Your task to perform on an android device: set default search engine in the chrome app Image 0: 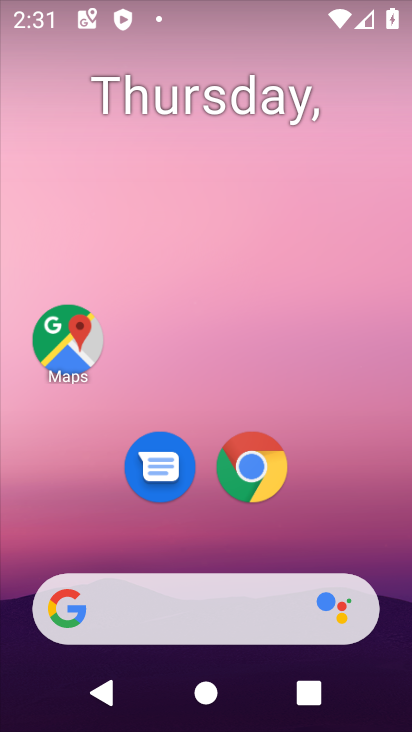
Step 0: click (304, 28)
Your task to perform on an android device: set default search engine in the chrome app Image 1: 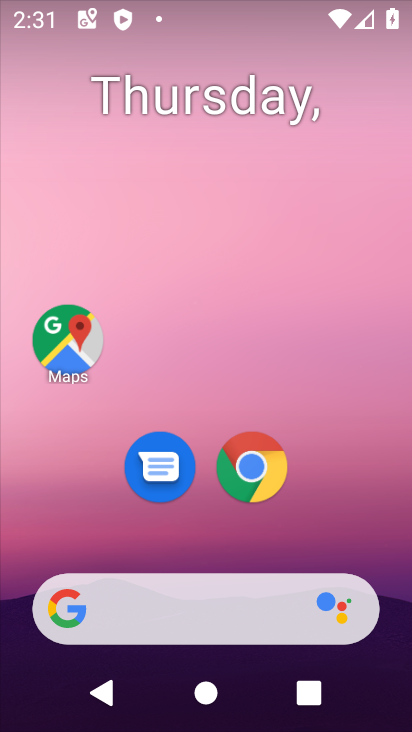
Step 1: drag from (201, 561) to (246, 126)
Your task to perform on an android device: set default search engine in the chrome app Image 2: 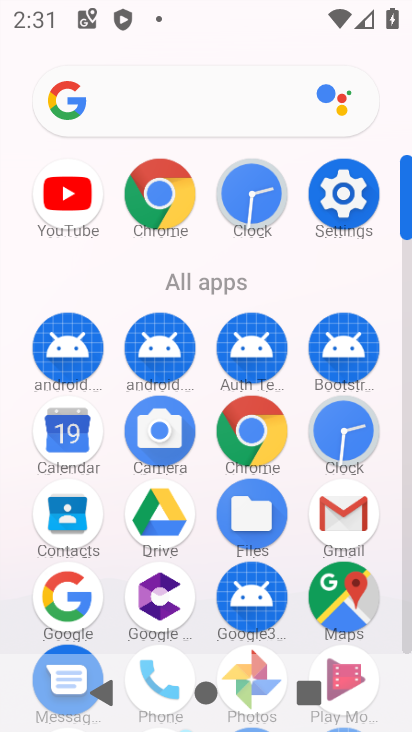
Step 2: click (255, 425)
Your task to perform on an android device: set default search engine in the chrome app Image 3: 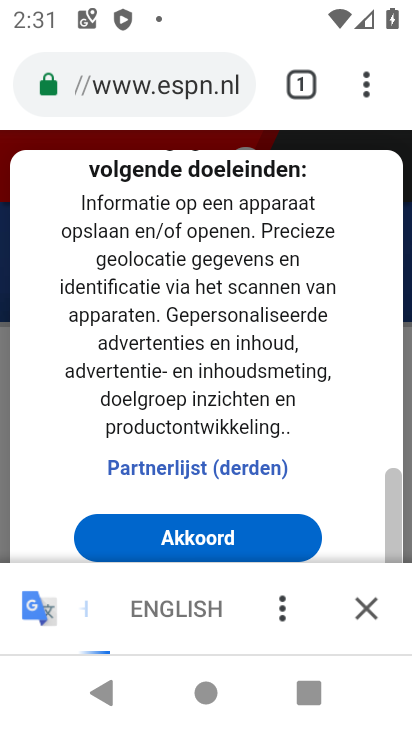
Step 3: drag from (269, 419) to (311, 173)
Your task to perform on an android device: set default search engine in the chrome app Image 4: 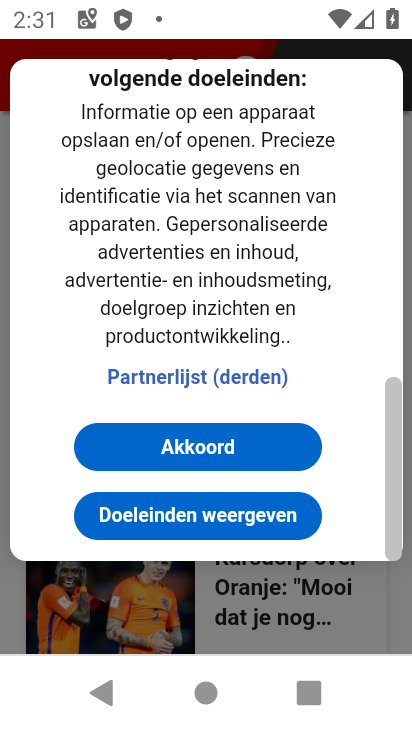
Step 4: drag from (323, 304) to (379, 131)
Your task to perform on an android device: set default search engine in the chrome app Image 5: 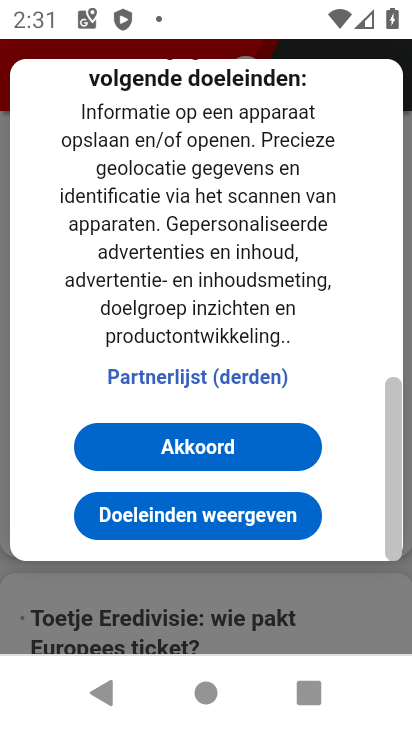
Step 5: drag from (318, 161) to (380, 573)
Your task to perform on an android device: set default search engine in the chrome app Image 6: 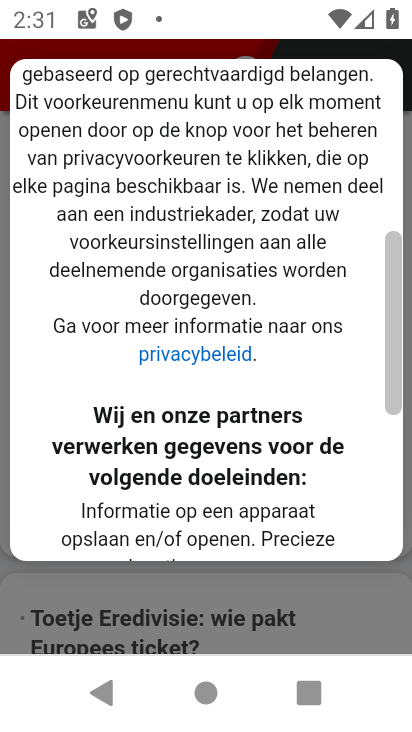
Step 6: drag from (353, 566) to (394, 720)
Your task to perform on an android device: set default search engine in the chrome app Image 7: 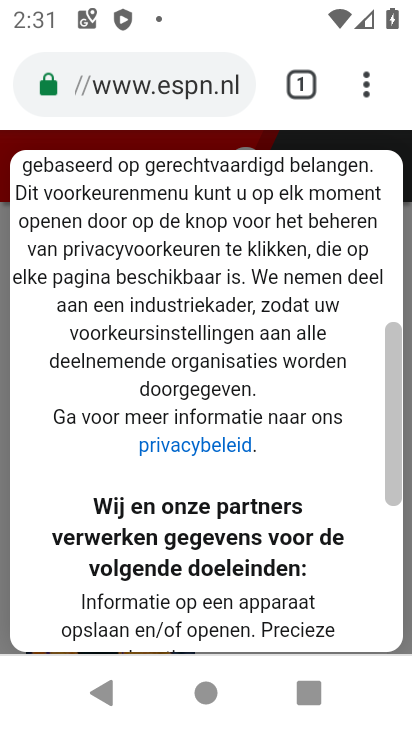
Step 7: click (375, 84)
Your task to perform on an android device: set default search engine in the chrome app Image 8: 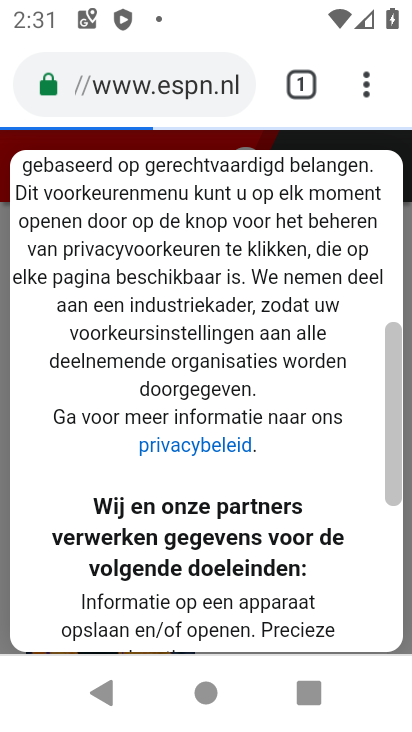
Step 8: click (361, 88)
Your task to perform on an android device: set default search engine in the chrome app Image 9: 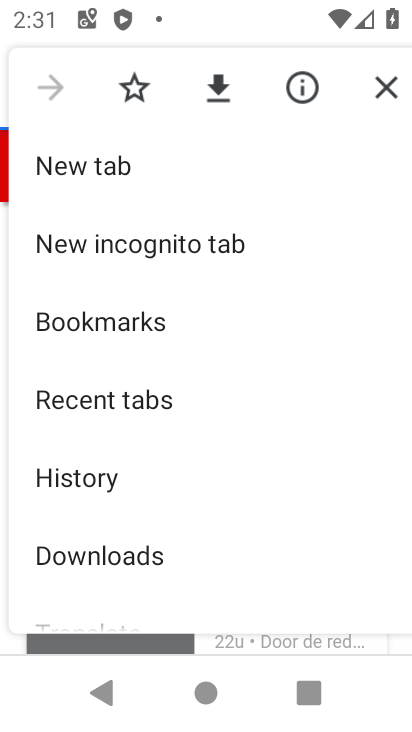
Step 9: drag from (141, 550) to (184, 320)
Your task to perform on an android device: set default search engine in the chrome app Image 10: 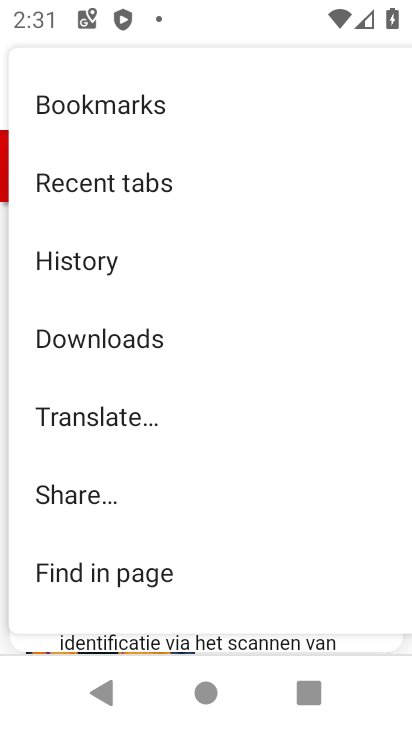
Step 10: drag from (170, 559) to (224, 130)
Your task to perform on an android device: set default search engine in the chrome app Image 11: 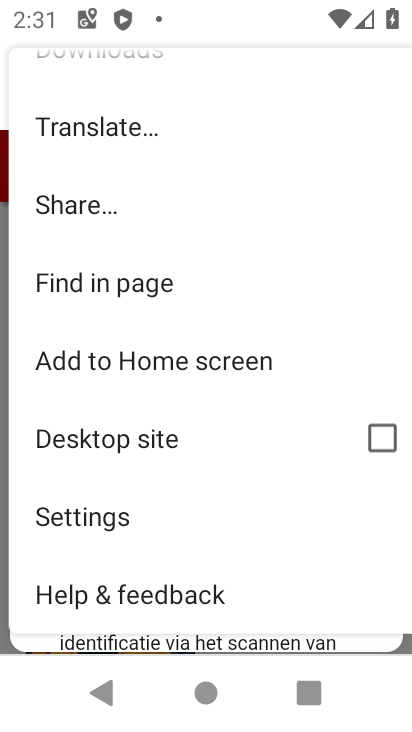
Step 11: click (111, 503)
Your task to perform on an android device: set default search engine in the chrome app Image 12: 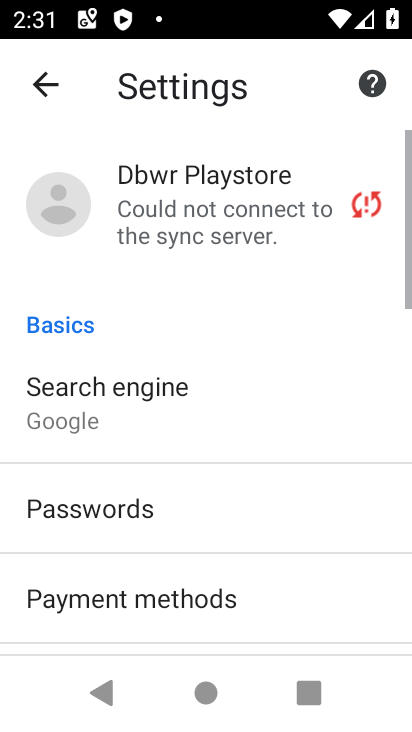
Step 12: drag from (226, 553) to (217, 21)
Your task to perform on an android device: set default search engine in the chrome app Image 13: 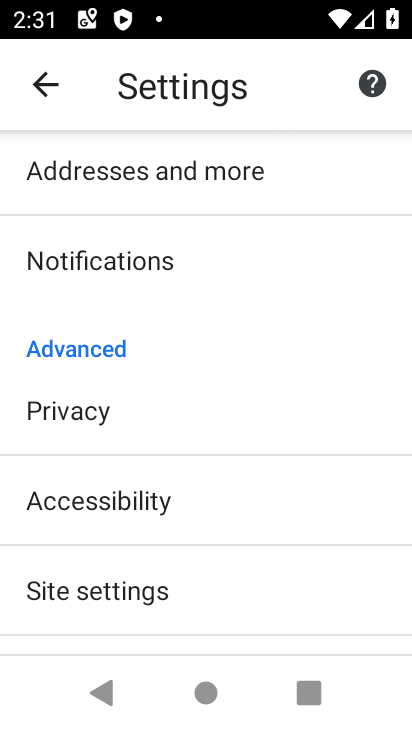
Step 13: drag from (194, 631) to (250, 311)
Your task to perform on an android device: set default search engine in the chrome app Image 14: 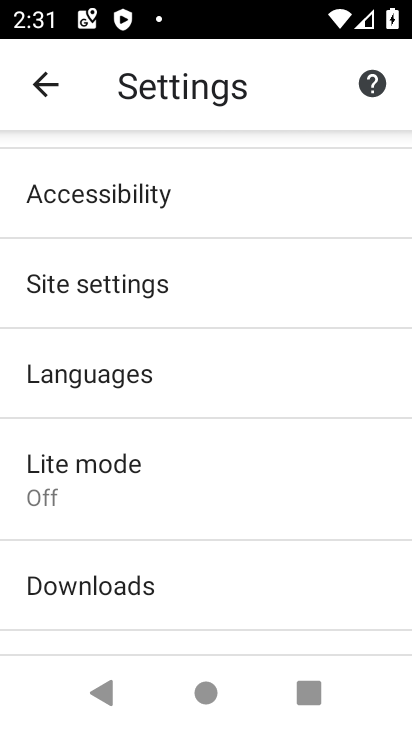
Step 14: click (146, 297)
Your task to perform on an android device: set default search engine in the chrome app Image 15: 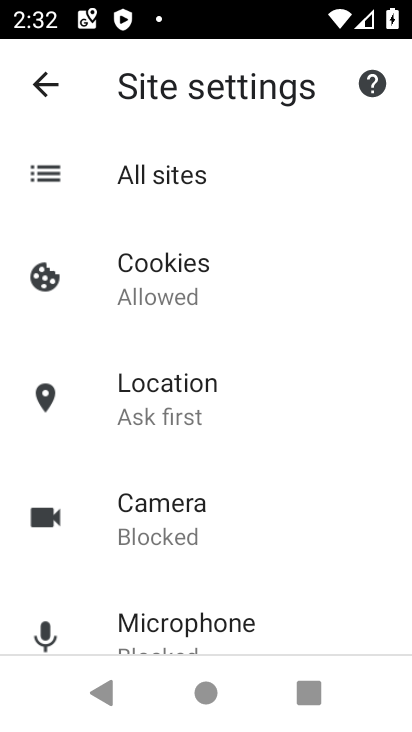
Step 15: drag from (240, 574) to (266, 356)
Your task to perform on an android device: set default search engine in the chrome app Image 16: 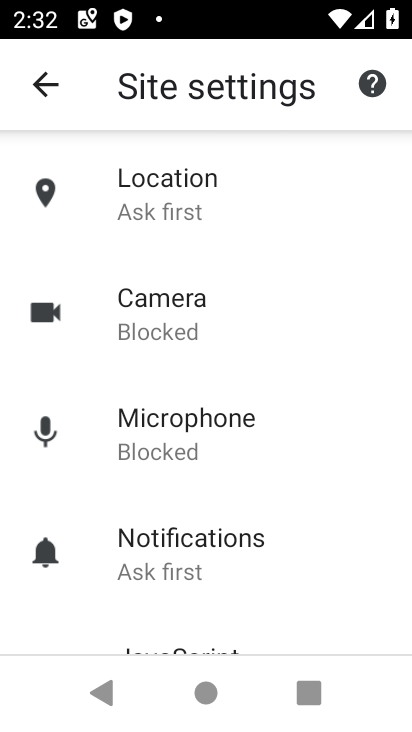
Step 16: drag from (191, 257) to (253, 670)
Your task to perform on an android device: set default search engine in the chrome app Image 17: 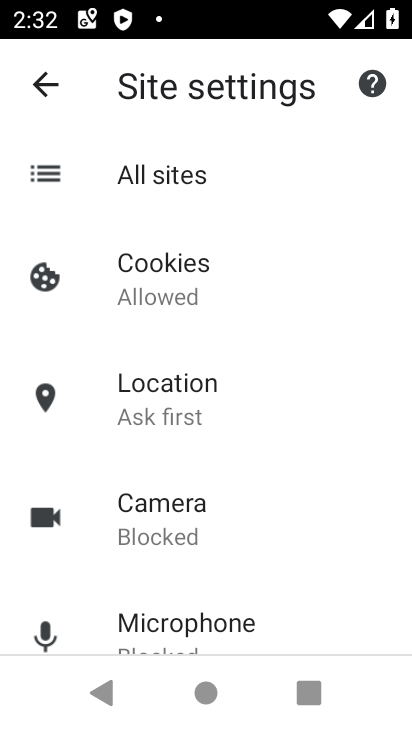
Step 17: drag from (240, 537) to (287, 245)
Your task to perform on an android device: set default search engine in the chrome app Image 18: 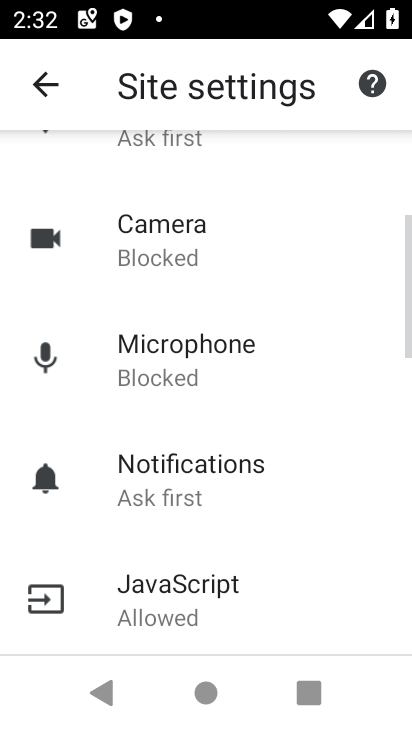
Step 18: drag from (289, 263) to (267, 530)
Your task to perform on an android device: set default search engine in the chrome app Image 19: 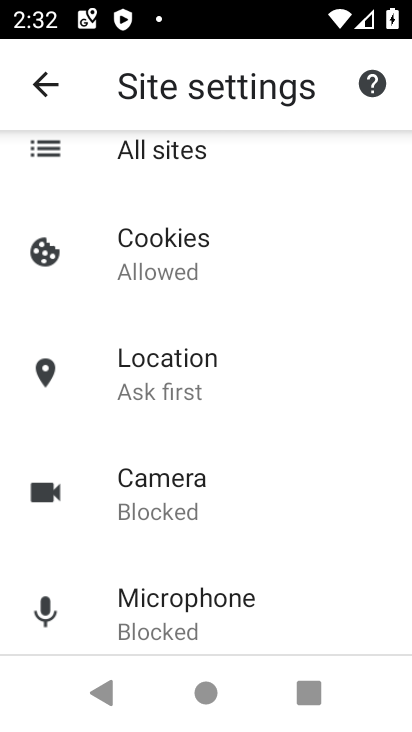
Step 19: click (52, 96)
Your task to perform on an android device: set default search engine in the chrome app Image 20: 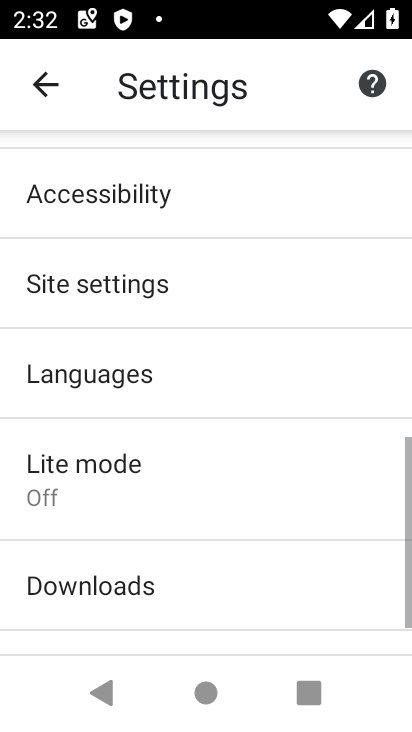
Step 20: drag from (149, 215) to (352, 663)
Your task to perform on an android device: set default search engine in the chrome app Image 21: 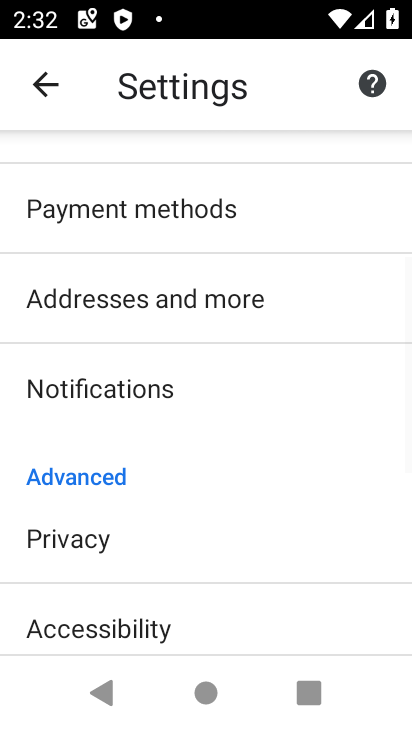
Step 21: drag from (136, 242) to (324, 731)
Your task to perform on an android device: set default search engine in the chrome app Image 22: 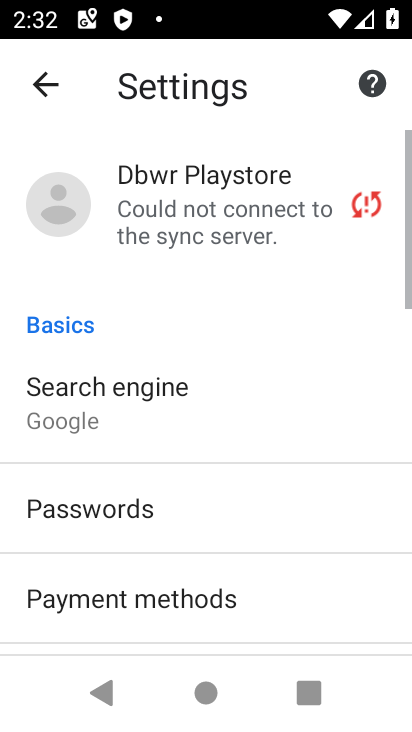
Step 22: drag from (140, 263) to (369, 690)
Your task to perform on an android device: set default search engine in the chrome app Image 23: 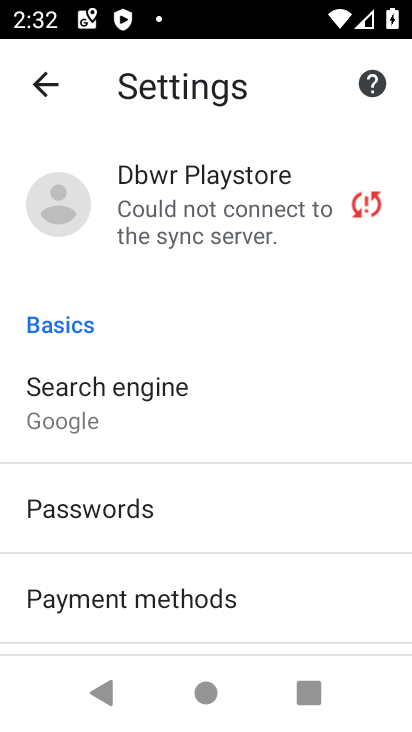
Step 23: click (188, 417)
Your task to perform on an android device: set default search engine in the chrome app Image 24: 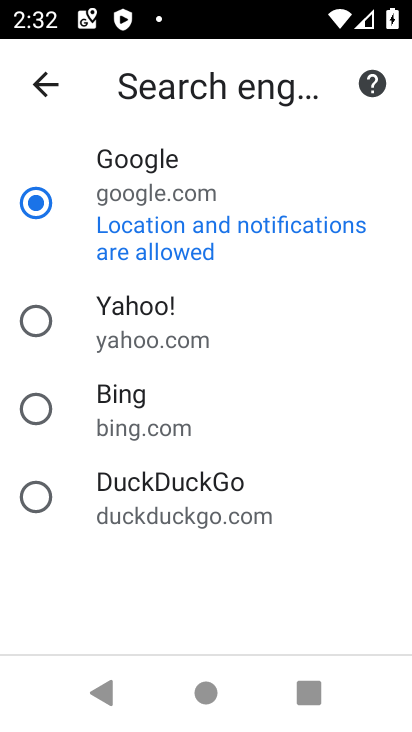
Step 24: task complete